Your task to perform on an android device: turn pop-ups off in chrome Image 0: 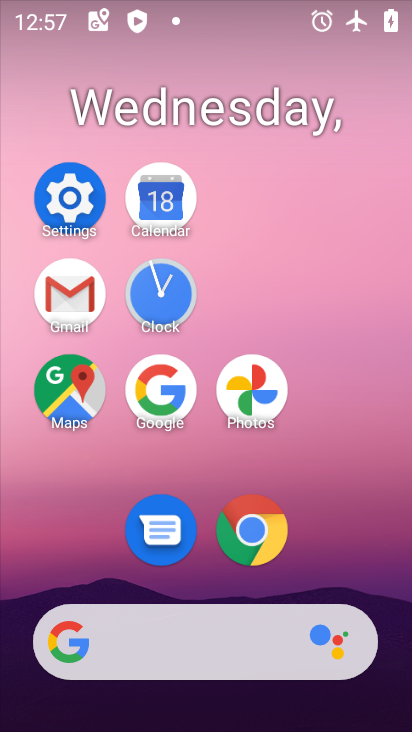
Step 0: click (262, 542)
Your task to perform on an android device: turn pop-ups off in chrome Image 1: 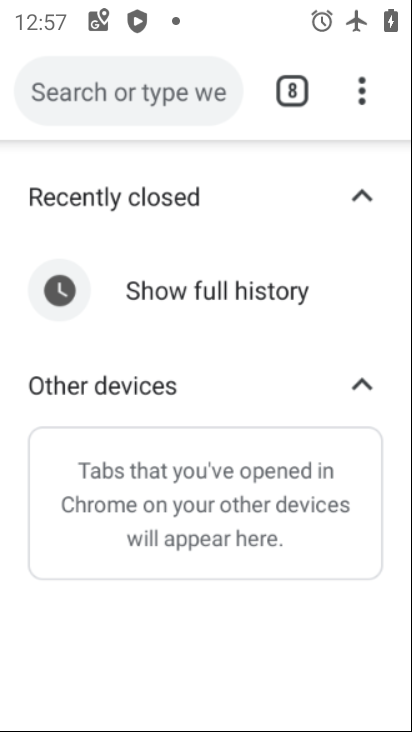
Step 1: click (364, 91)
Your task to perform on an android device: turn pop-ups off in chrome Image 2: 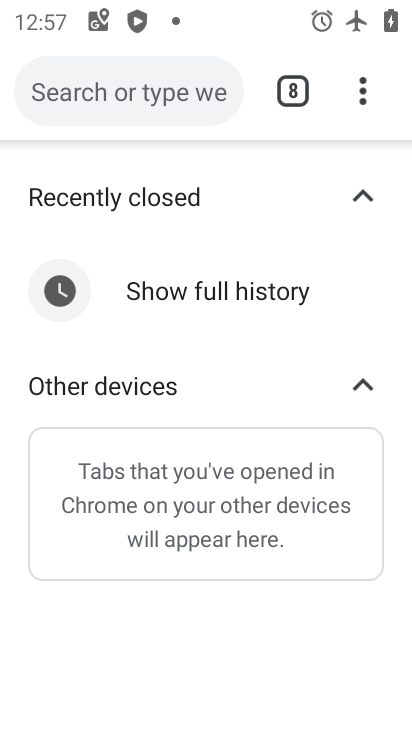
Step 2: click (357, 95)
Your task to perform on an android device: turn pop-ups off in chrome Image 3: 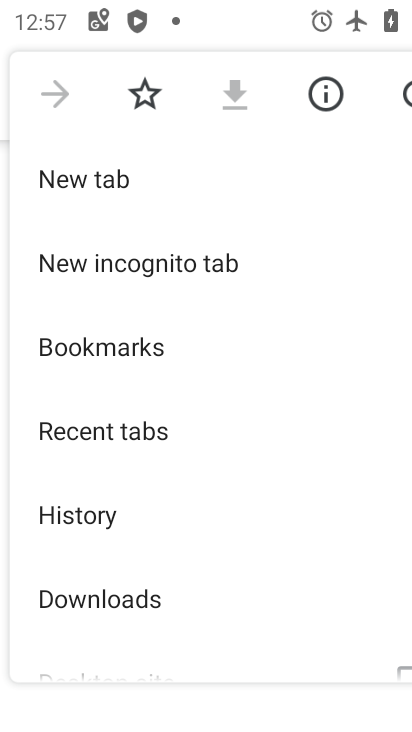
Step 3: drag from (221, 480) to (311, 164)
Your task to perform on an android device: turn pop-ups off in chrome Image 4: 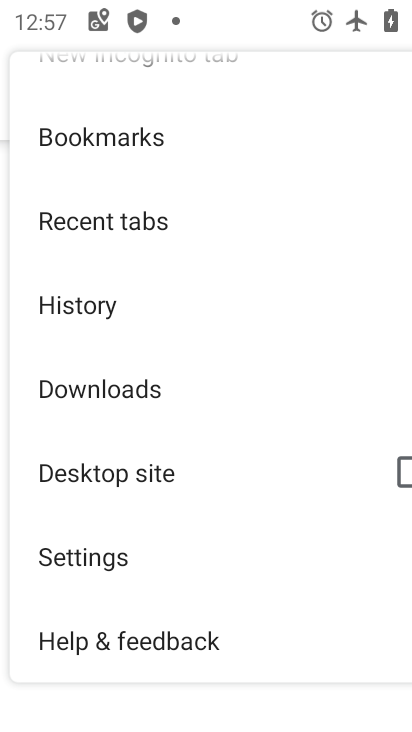
Step 4: click (148, 576)
Your task to perform on an android device: turn pop-ups off in chrome Image 5: 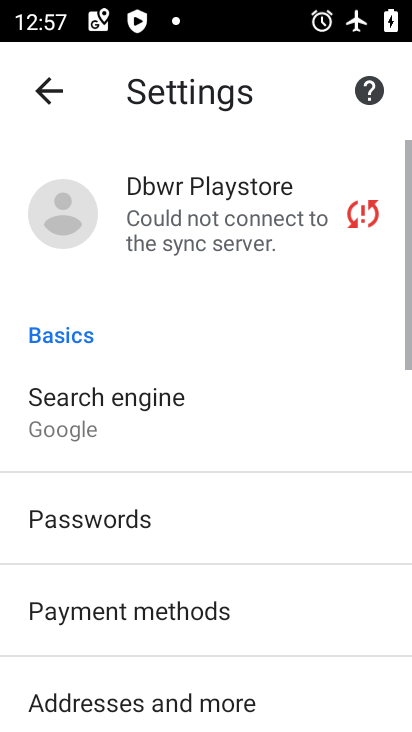
Step 5: drag from (148, 576) to (190, 194)
Your task to perform on an android device: turn pop-ups off in chrome Image 6: 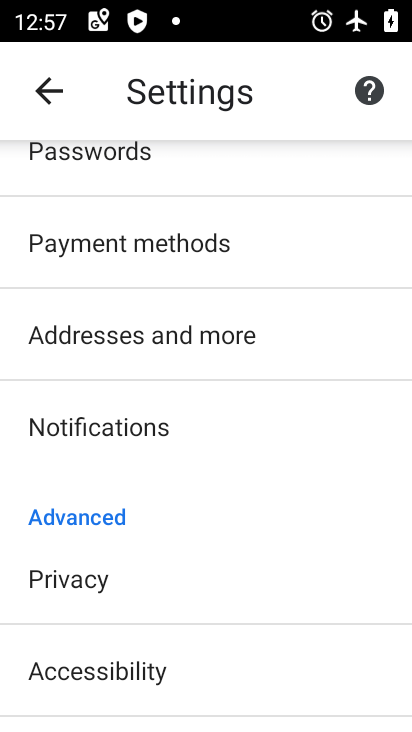
Step 6: drag from (113, 615) to (256, 162)
Your task to perform on an android device: turn pop-ups off in chrome Image 7: 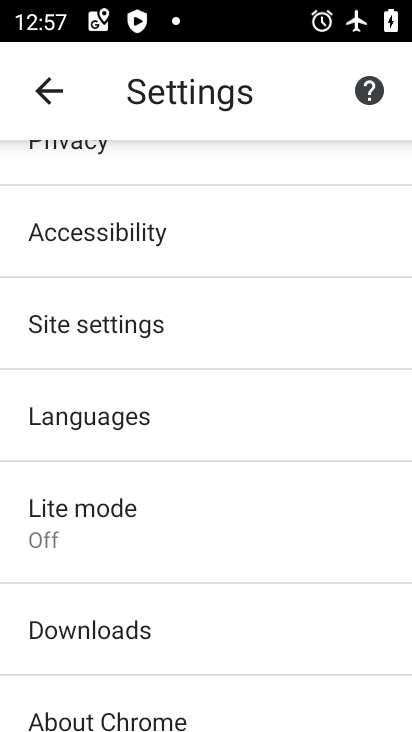
Step 7: click (211, 317)
Your task to perform on an android device: turn pop-ups off in chrome Image 8: 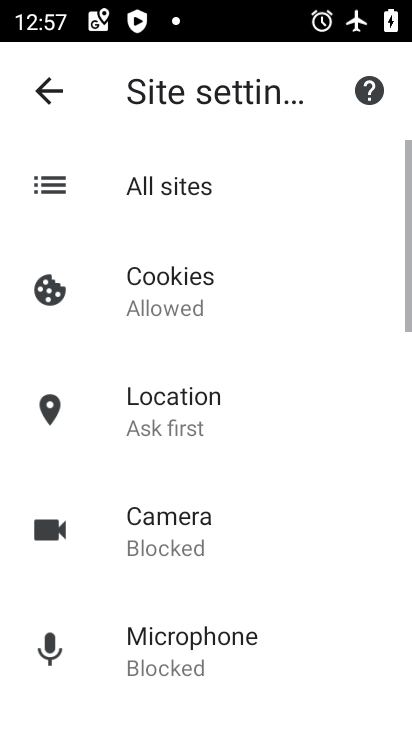
Step 8: drag from (217, 526) to (256, 188)
Your task to perform on an android device: turn pop-ups off in chrome Image 9: 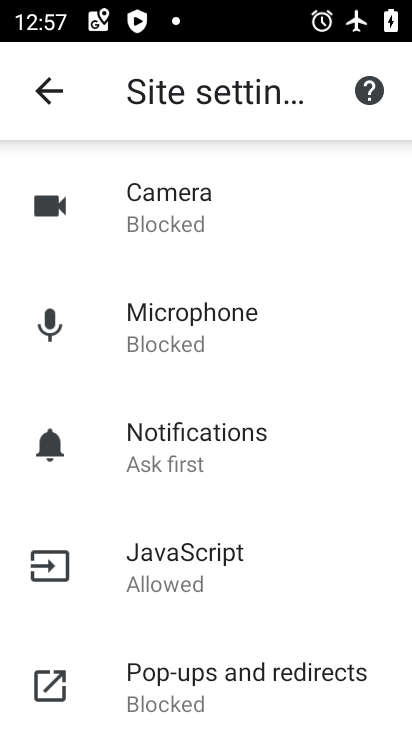
Step 9: drag from (203, 539) to (245, 241)
Your task to perform on an android device: turn pop-ups off in chrome Image 10: 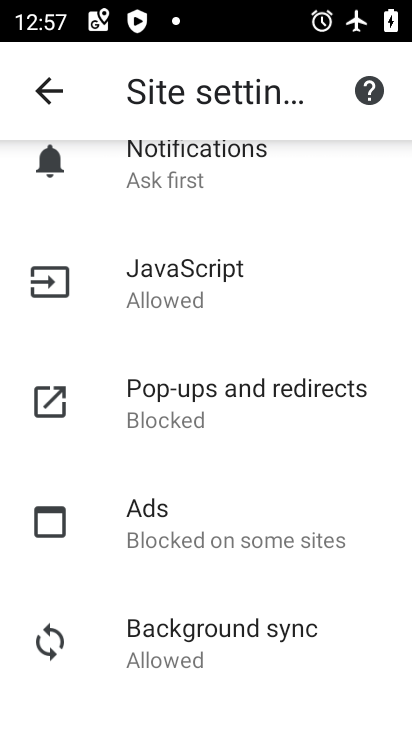
Step 10: click (233, 424)
Your task to perform on an android device: turn pop-ups off in chrome Image 11: 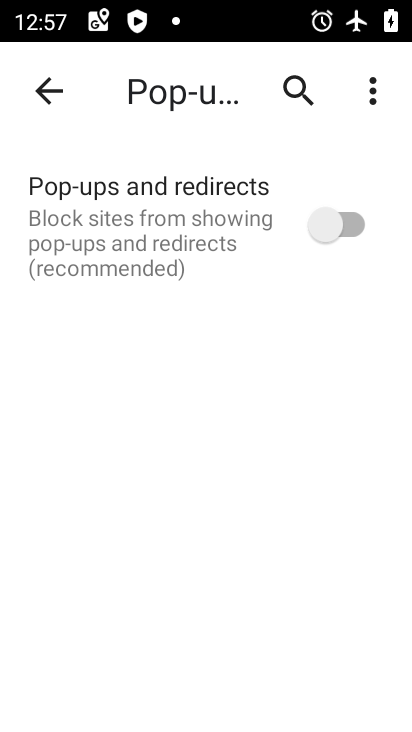
Step 11: task complete